Your task to perform on an android device: find snoozed emails in the gmail app Image 0: 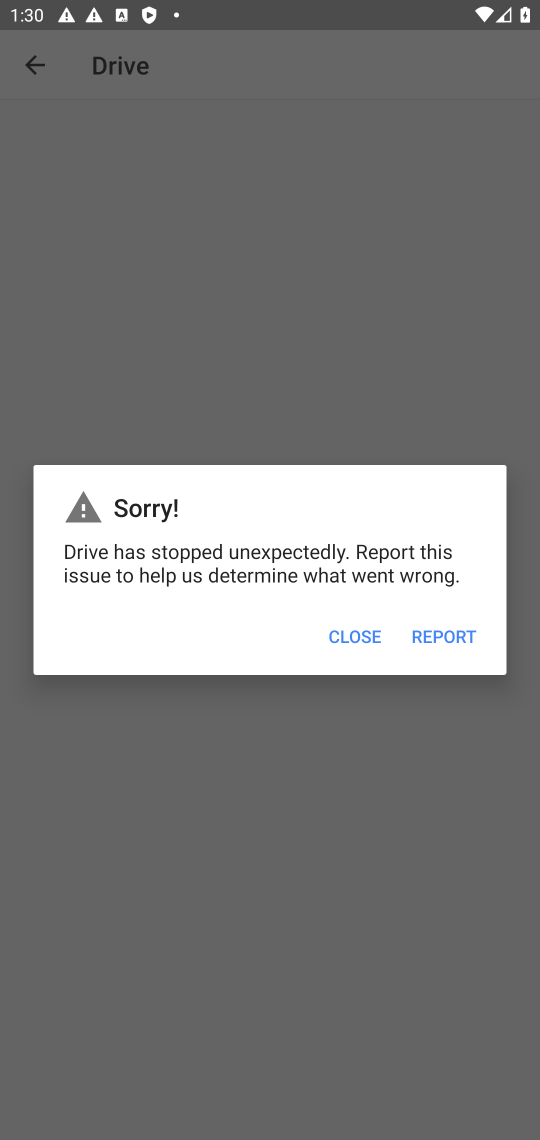
Step 0: press home button
Your task to perform on an android device: find snoozed emails in the gmail app Image 1: 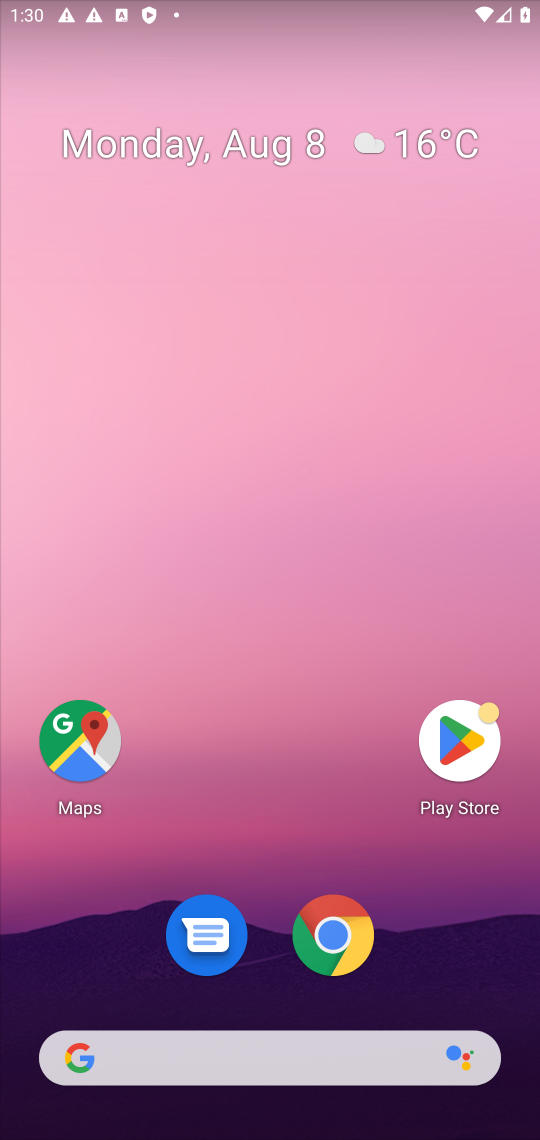
Step 1: drag from (182, 1067) to (178, 81)
Your task to perform on an android device: find snoozed emails in the gmail app Image 2: 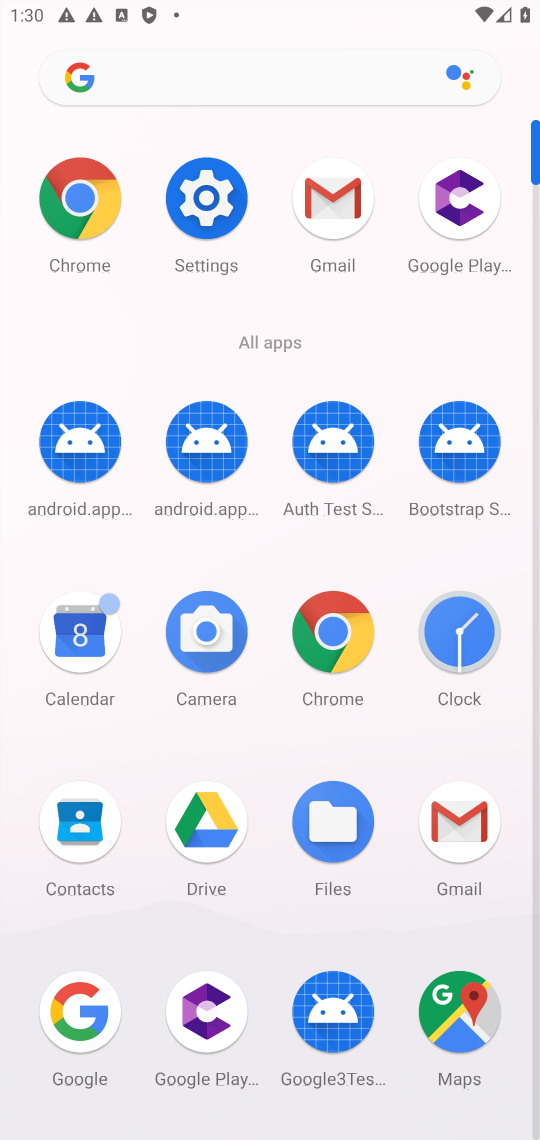
Step 2: click (481, 808)
Your task to perform on an android device: find snoozed emails in the gmail app Image 3: 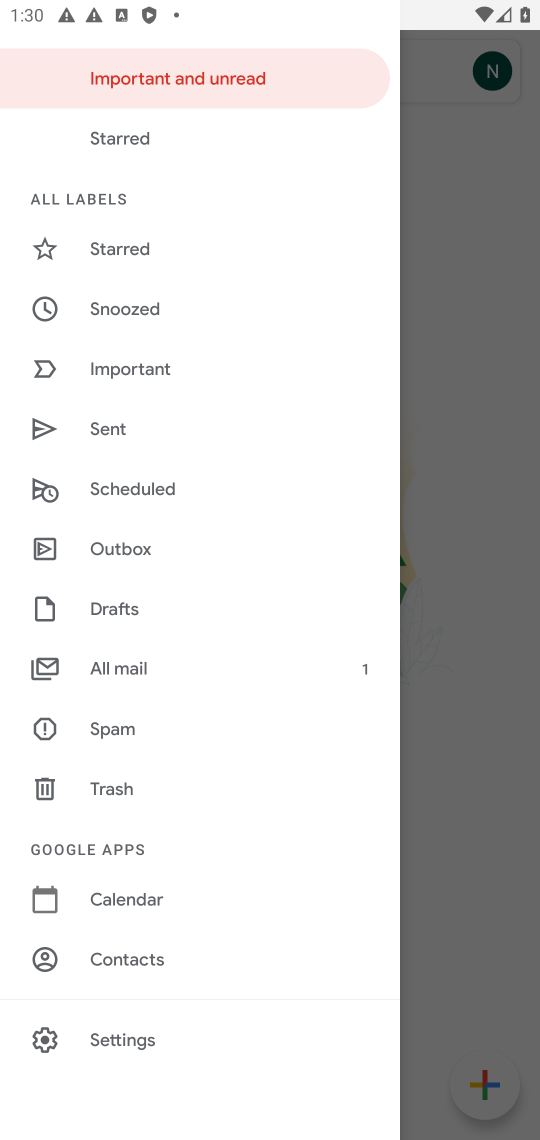
Step 3: drag from (184, 1011) to (195, 210)
Your task to perform on an android device: find snoozed emails in the gmail app Image 4: 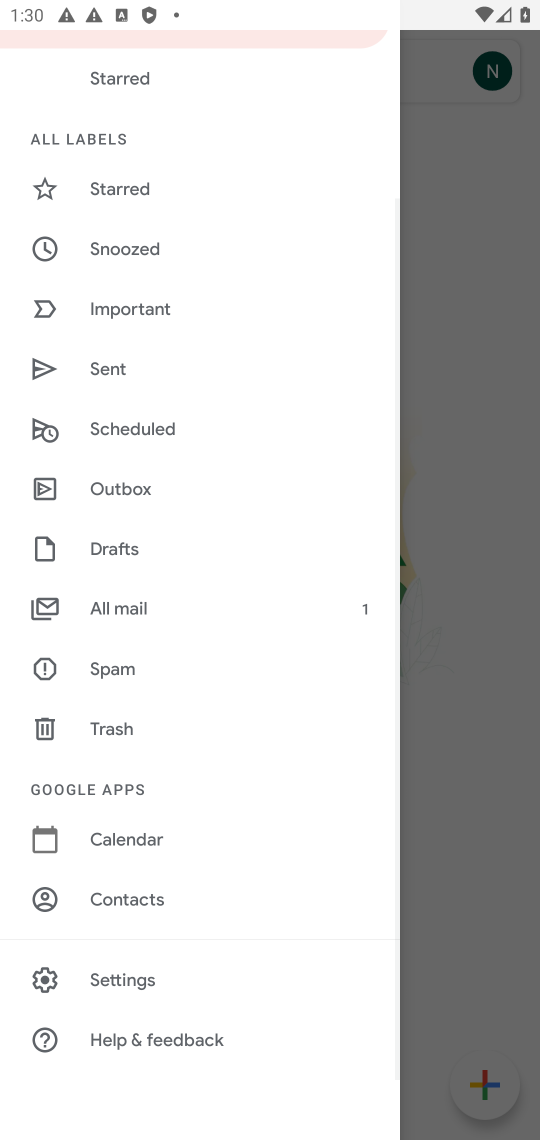
Step 4: click (119, 274)
Your task to perform on an android device: find snoozed emails in the gmail app Image 5: 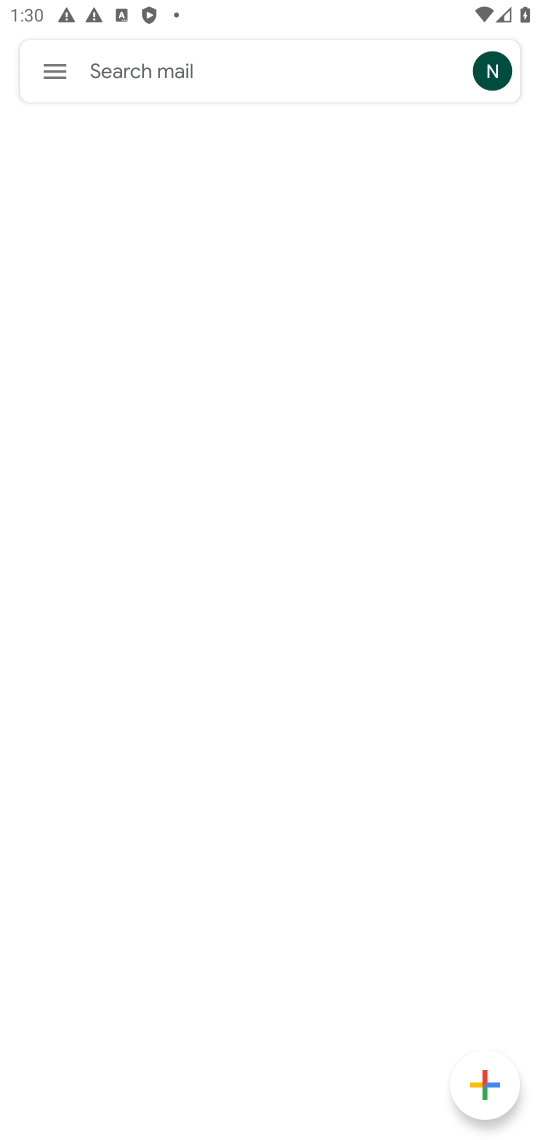
Step 5: task complete